Your task to perform on an android device: Do I have any events tomorrow? Image 0: 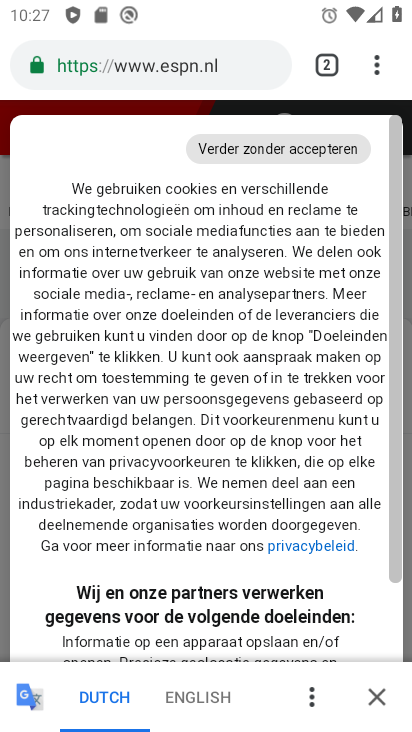
Step 0: press home button
Your task to perform on an android device: Do I have any events tomorrow? Image 1: 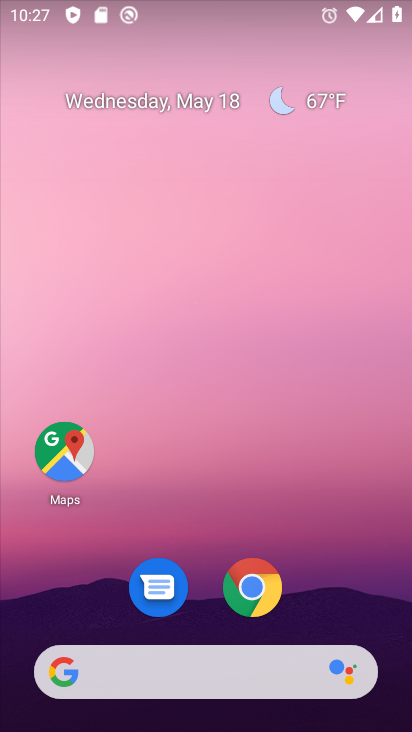
Step 1: drag from (352, 574) to (359, 78)
Your task to perform on an android device: Do I have any events tomorrow? Image 2: 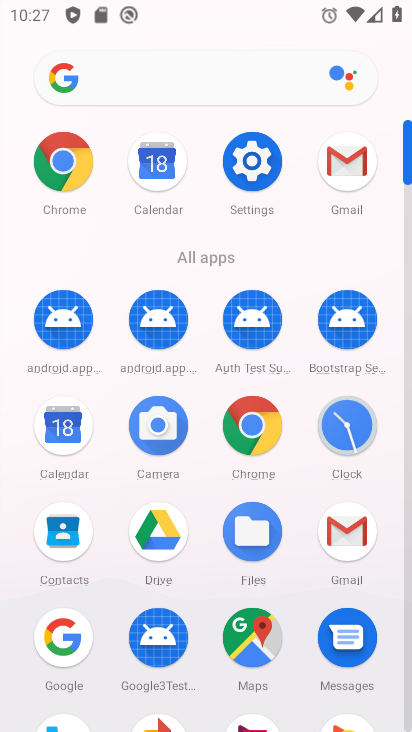
Step 2: click (158, 182)
Your task to perform on an android device: Do I have any events tomorrow? Image 3: 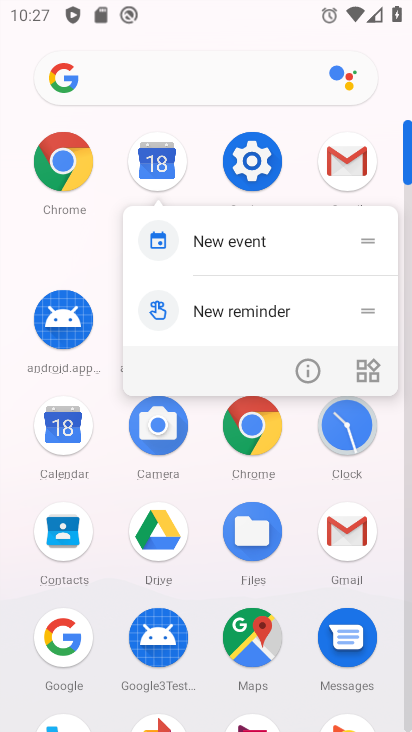
Step 3: click (158, 182)
Your task to perform on an android device: Do I have any events tomorrow? Image 4: 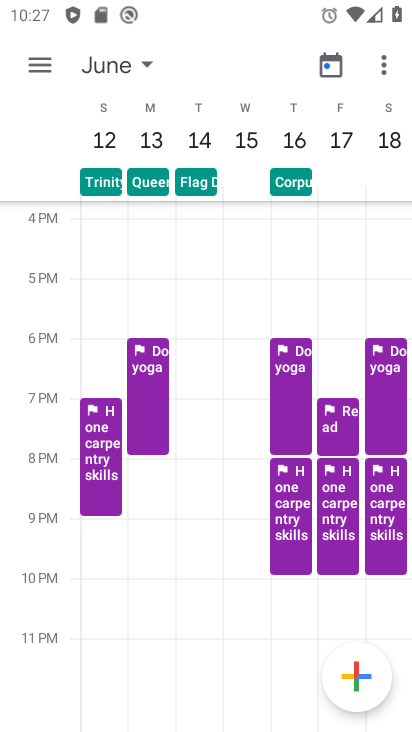
Step 4: click (148, 60)
Your task to perform on an android device: Do I have any events tomorrow? Image 5: 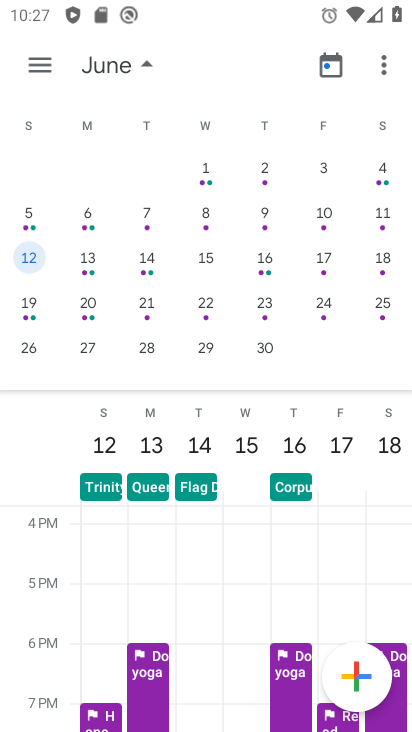
Step 5: drag from (111, 214) to (327, 202)
Your task to perform on an android device: Do I have any events tomorrow? Image 6: 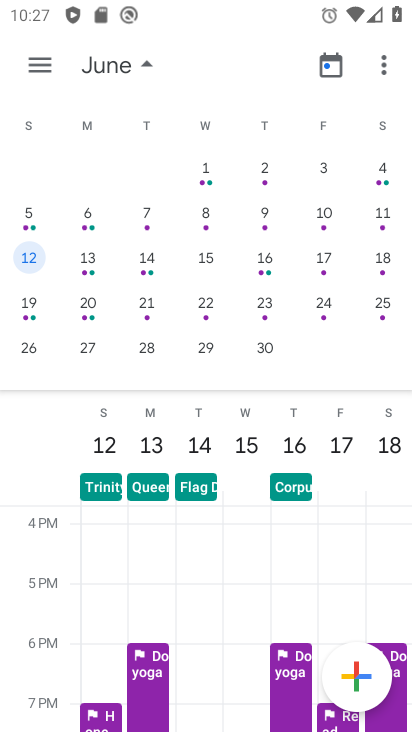
Step 6: drag from (81, 167) to (357, 179)
Your task to perform on an android device: Do I have any events tomorrow? Image 7: 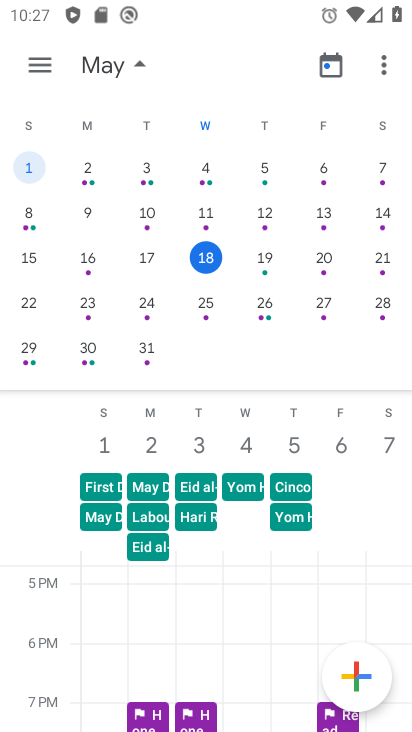
Step 7: click (322, 265)
Your task to perform on an android device: Do I have any events tomorrow? Image 8: 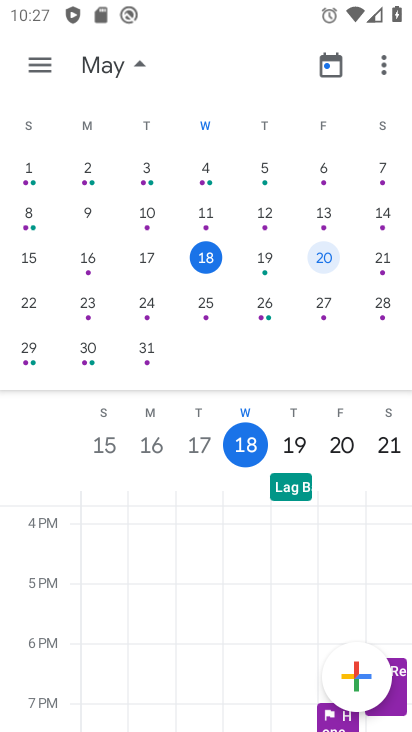
Step 8: click (32, 55)
Your task to perform on an android device: Do I have any events tomorrow? Image 9: 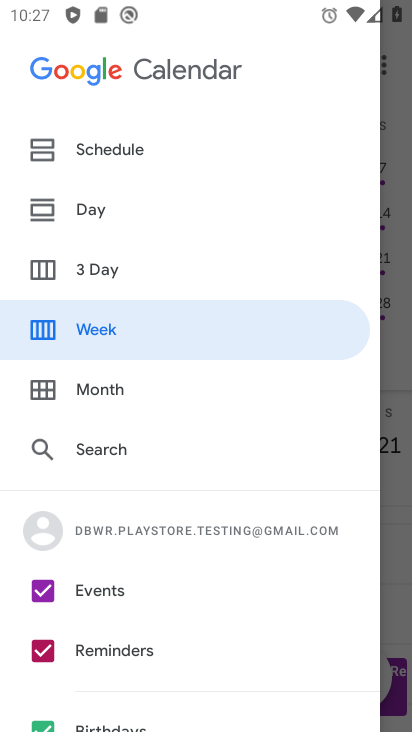
Step 9: click (141, 589)
Your task to perform on an android device: Do I have any events tomorrow? Image 10: 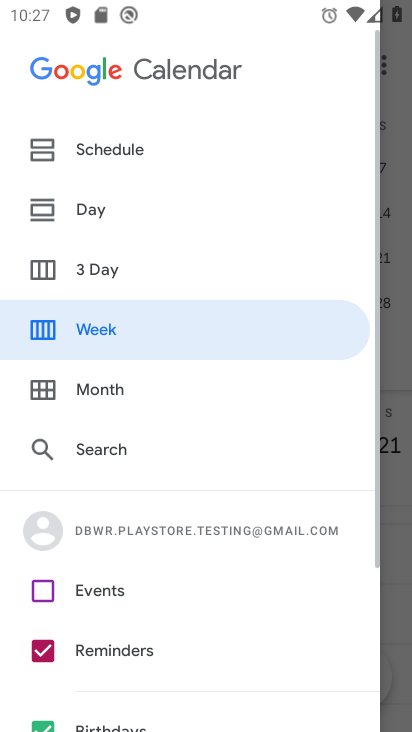
Step 10: click (141, 586)
Your task to perform on an android device: Do I have any events tomorrow? Image 11: 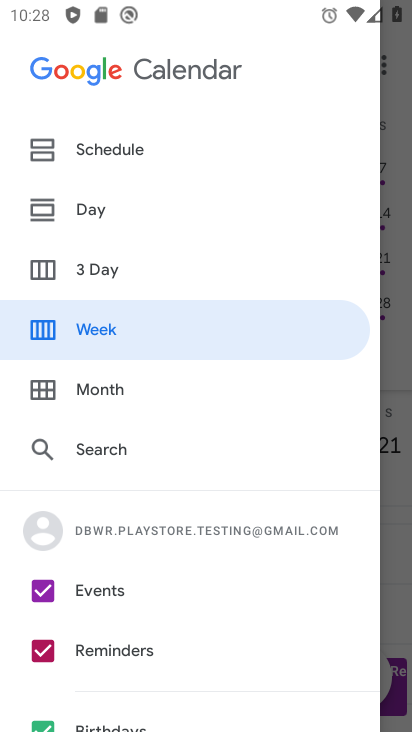
Step 11: drag from (387, 327) to (186, 320)
Your task to perform on an android device: Do I have any events tomorrow? Image 12: 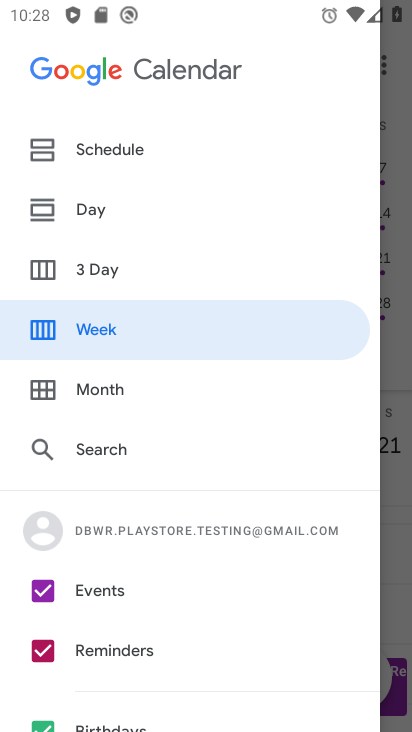
Step 12: drag from (393, 282) to (6, 254)
Your task to perform on an android device: Do I have any events tomorrow? Image 13: 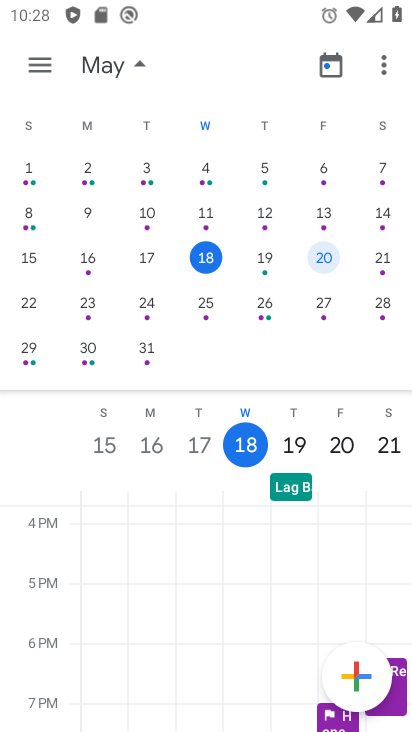
Step 13: drag from (216, 633) to (221, 400)
Your task to perform on an android device: Do I have any events tomorrow? Image 14: 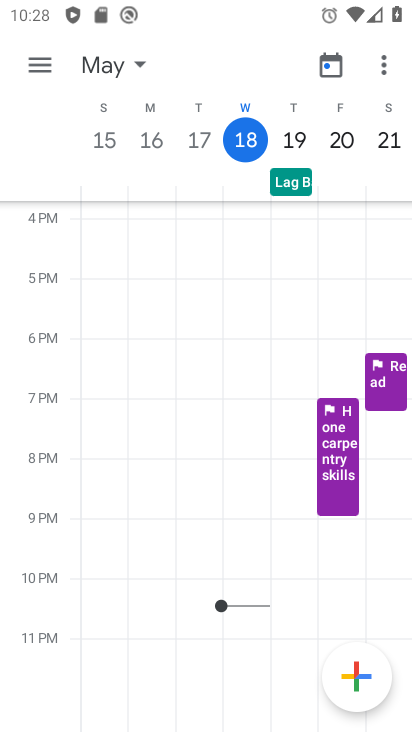
Step 14: click (300, 139)
Your task to perform on an android device: Do I have any events tomorrow? Image 15: 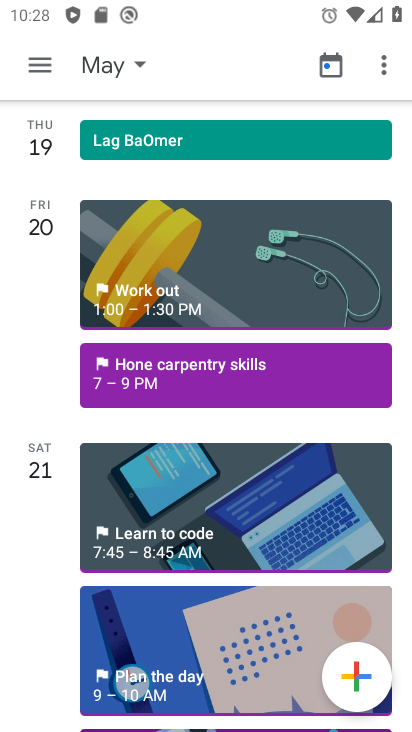
Step 15: drag from (211, 417) to (230, 319)
Your task to perform on an android device: Do I have any events tomorrow? Image 16: 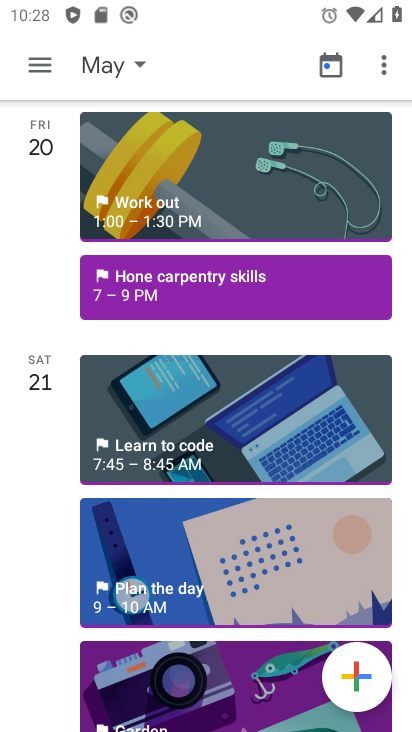
Step 16: click (101, 61)
Your task to perform on an android device: Do I have any events tomorrow? Image 17: 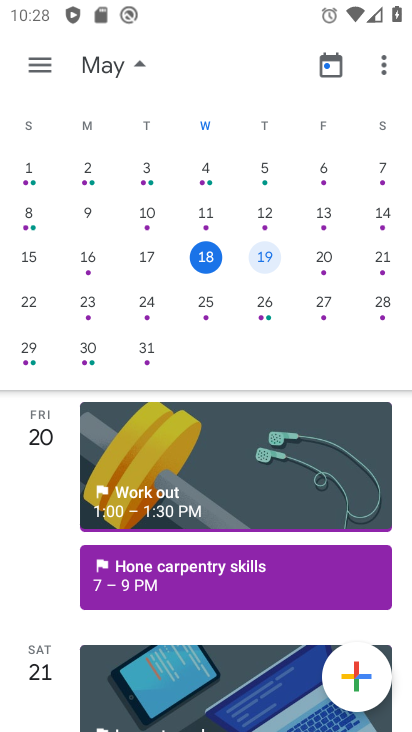
Step 17: click (257, 257)
Your task to perform on an android device: Do I have any events tomorrow? Image 18: 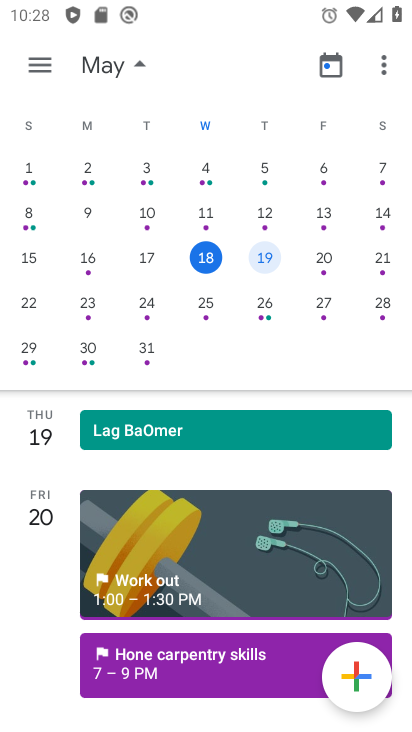
Step 18: task complete